Your task to perform on an android device: open sync settings in chrome Image 0: 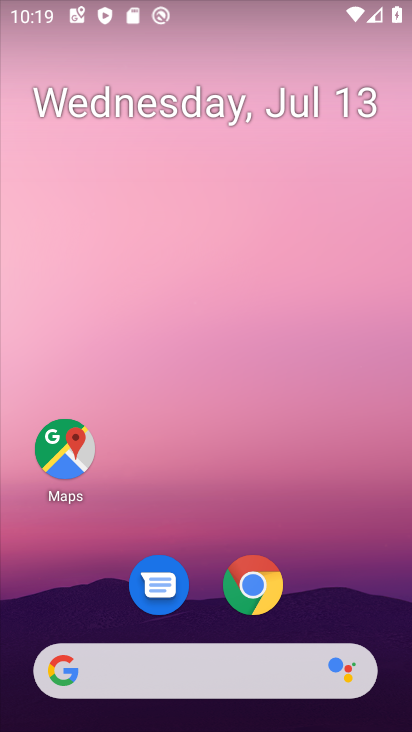
Step 0: click (264, 583)
Your task to perform on an android device: open sync settings in chrome Image 1: 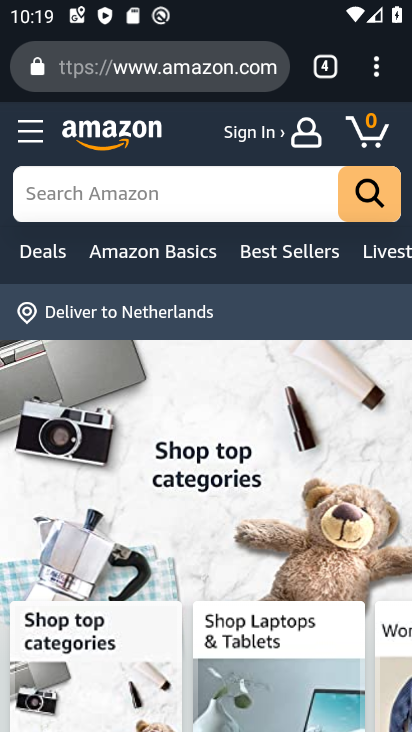
Step 1: click (376, 74)
Your task to perform on an android device: open sync settings in chrome Image 2: 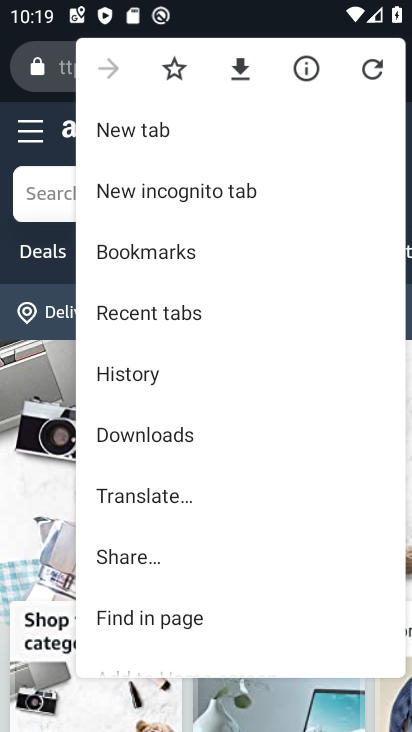
Step 2: drag from (224, 507) to (230, 252)
Your task to perform on an android device: open sync settings in chrome Image 3: 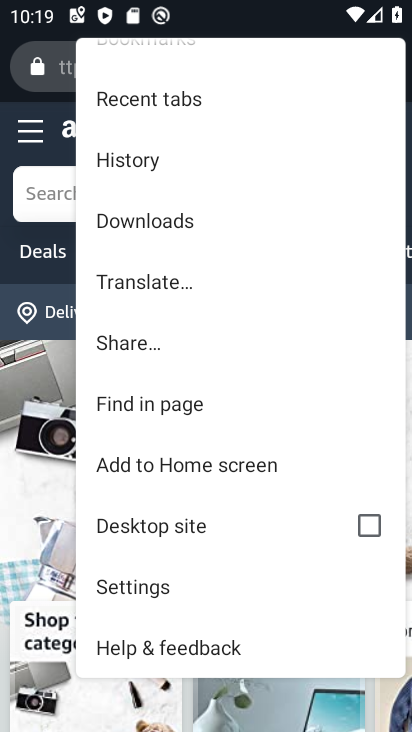
Step 3: click (165, 582)
Your task to perform on an android device: open sync settings in chrome Image 4: 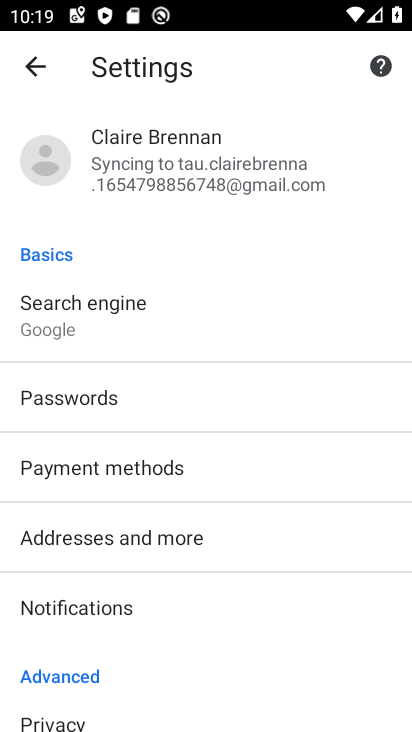
Step 4: click (205, 164)
Your task to perform on an android device: open sync settings in chrome Image 5: 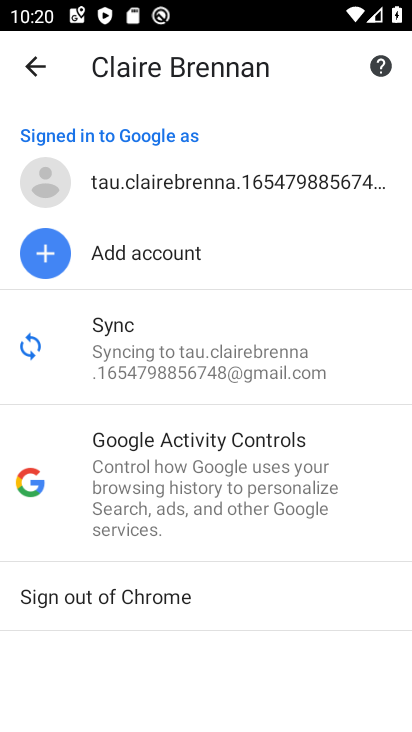
Step 5: click (216, 351)
Your task to perform on an android device: open sync settings in chrome Image 6: 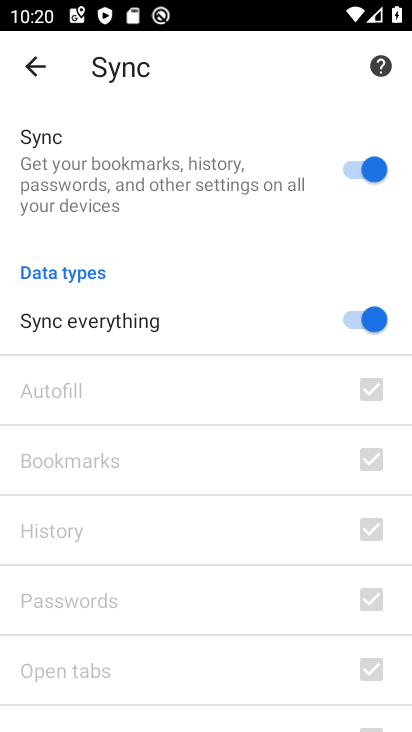
Step 6: task complete